Your task to perform on an android device: Show the shopping cart on costco. Search for "bose quietcomfort 35" on costco, select the first entry, add it to the cart, then select checkout. Image 0: 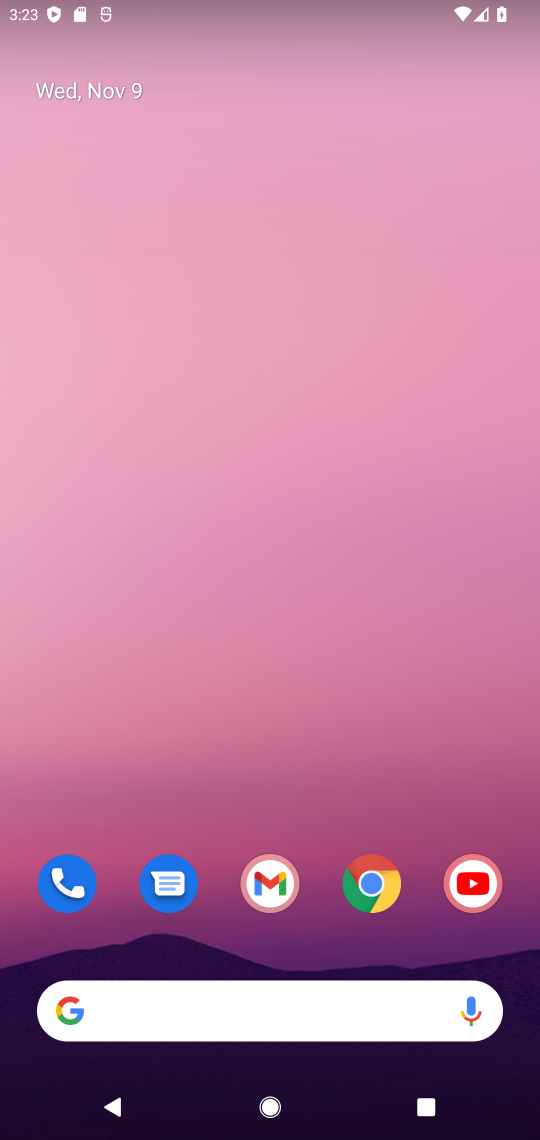
Step 0: click (373, 882)
Your task to perform on an android device: Show the shopping cart on costco. Search for "bose quietcomfort 35" on costco, select the first entry, add it to the cart, then select checkout. Image 1: 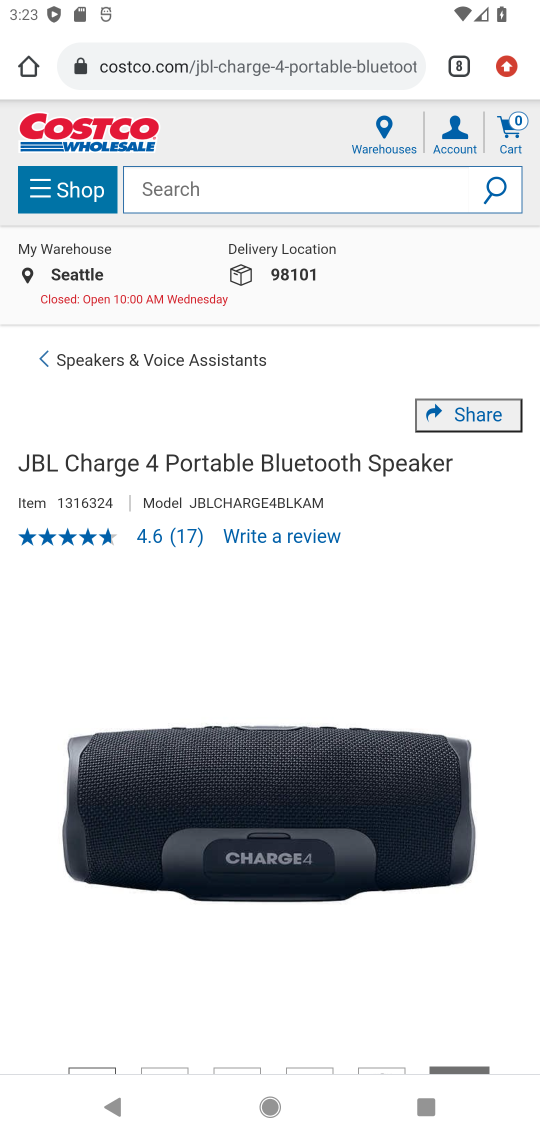
Step 1: click (155, 181)
Your task to perform on an android device: Show the shopping cart on costco. Search for "bose quietcomfort 35" on costco, select the first entry, add it to the cart, then select checkout. Image 2: 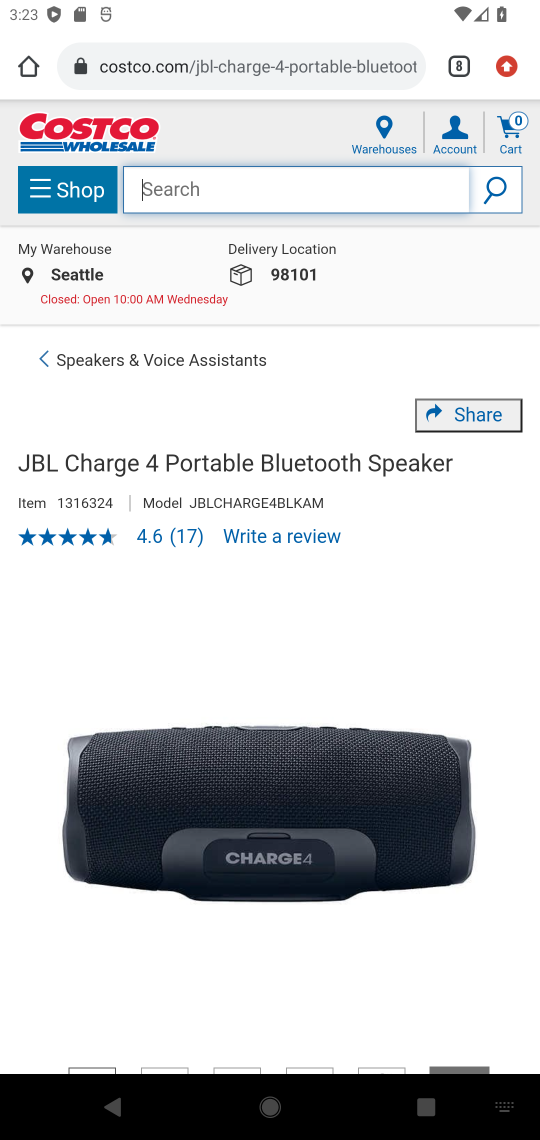
Step 2: type "bose quietcomfort 35"
Your task to perform on an android device: Show the shopping cart on costco. Search for "bose quietcomfort 35" on costco, select the first entry, add it to the cart, then select checkout. Image 3: 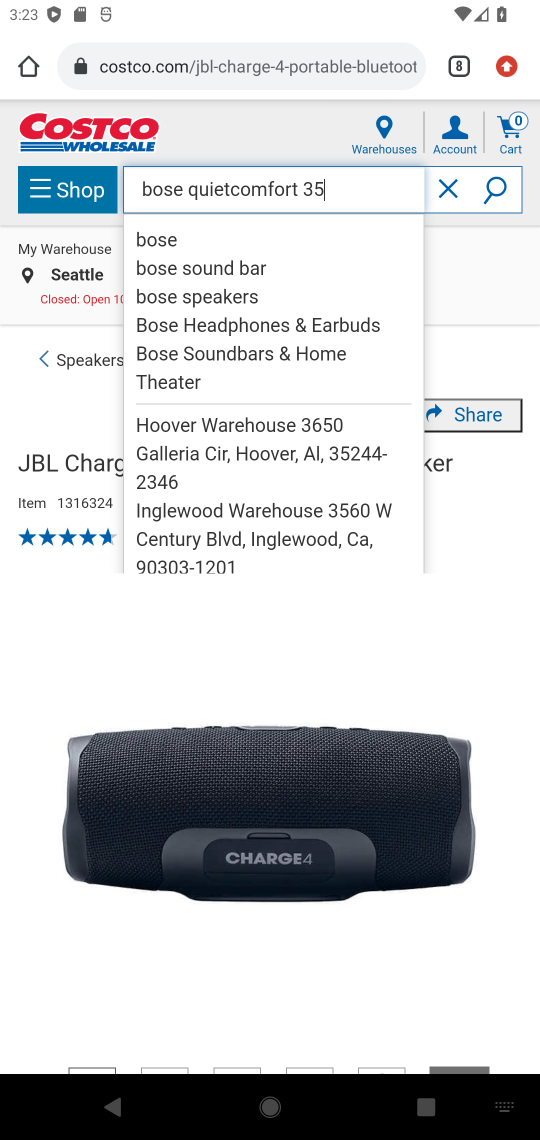
Step 3: click (496, 181)
Your task to perform on an android device: Show the shopping cart on costco. Search for "bose quietcomfort 35" on costco, select the first entry, add it to the cart, then select checkout. Image 4: 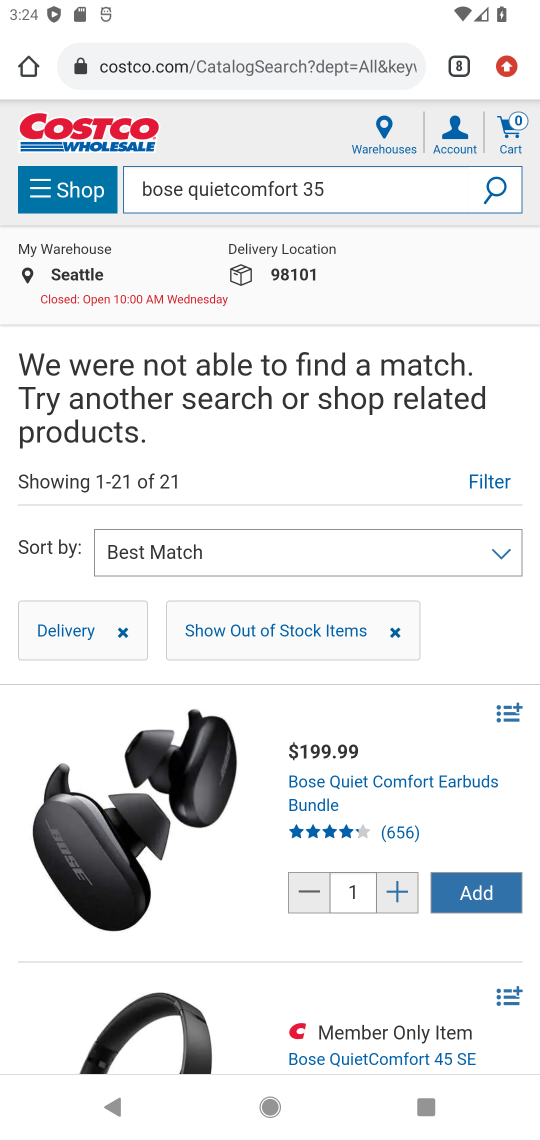
Step 4: click (469, 892)
Your task to perform on an android device: Show the shopping cart on costco. Search for "bose quietcomfort 35" on costco, select the first entry, add it to the cart, then select checkout. Image 5: 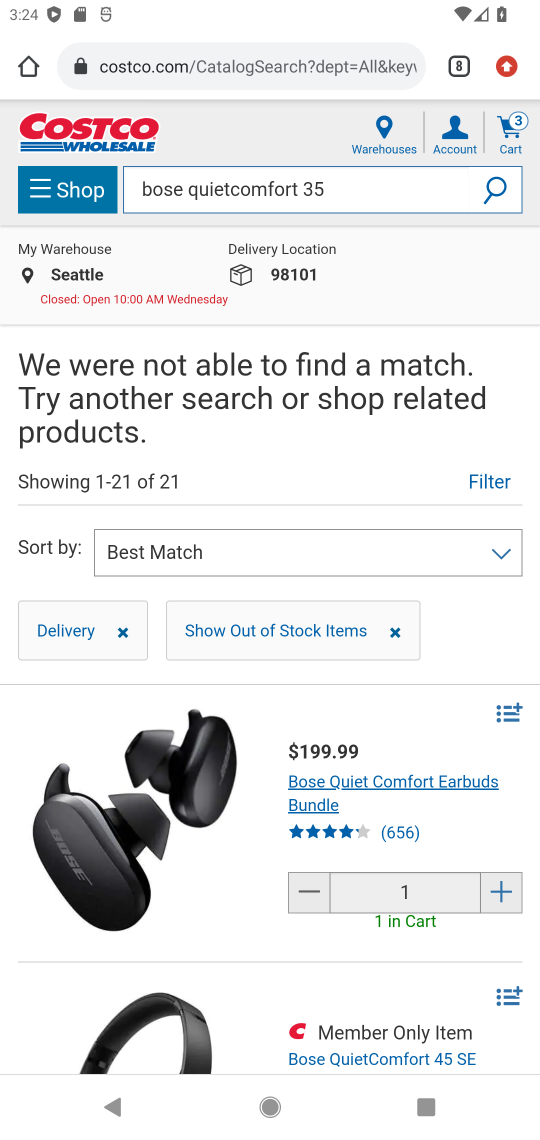
Step 5: task complete